Your task to perform on an android device: Show me recent news Image 0: 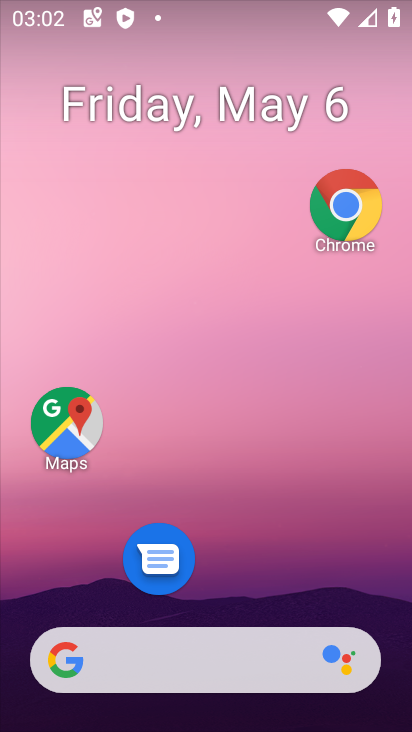
Step 0: drag from (213, 583) to (350, 68)
Your task to perform on an android device: Show me recent news Image 1: 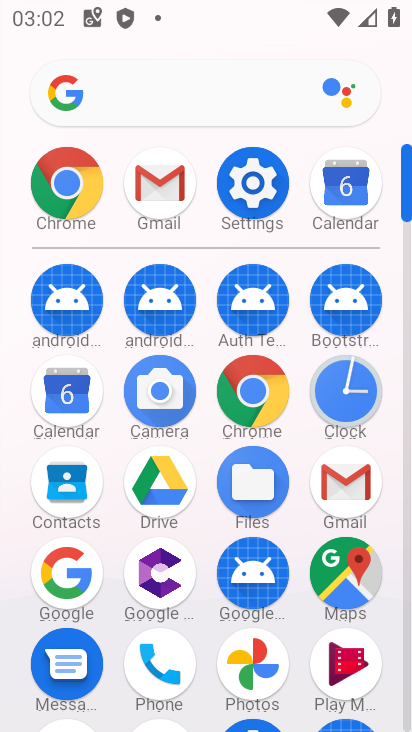
Step 1: click (70, 586)
Your task to perform on an android device: Show me recent news Image 2: 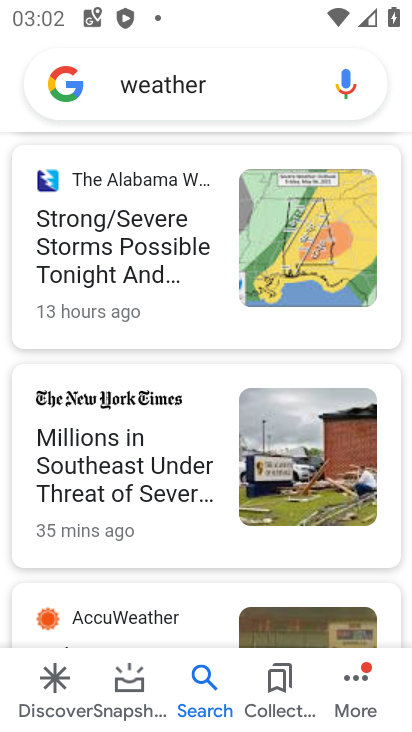
Step 2: task complete